Your task to perform on an android device: delete a single message in the gmail app Image 0: 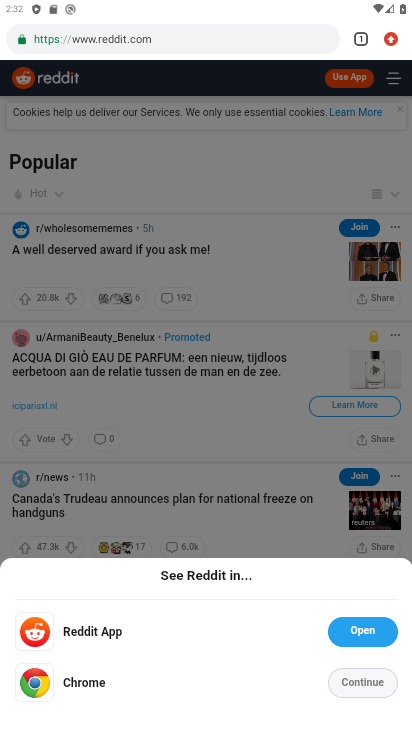
Step 0: press home button
Your task to perform on an android device: delete a single message in the gmail app Image 1: 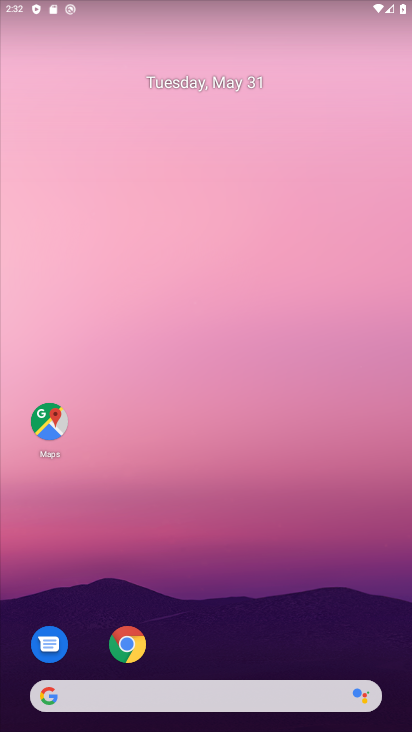
Step 1: drag from (326, 634) to (313, 170)
Your task to perform on an android device: delete a single message in the gmail app Image 2: 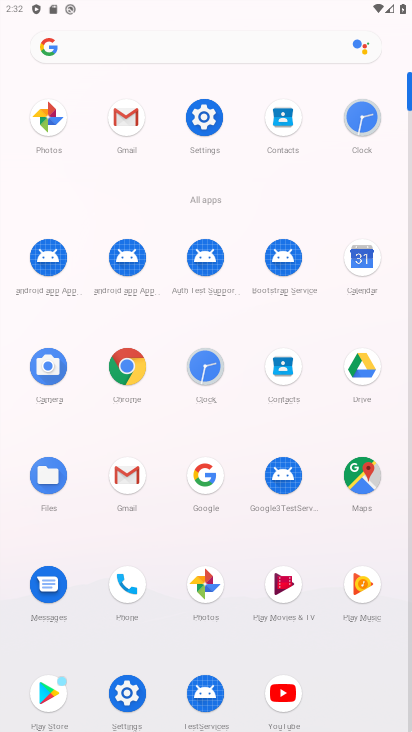
Step 2: click (125, 121)
Your task to perform on an android device: delete a single message in the gmail app Image 3: 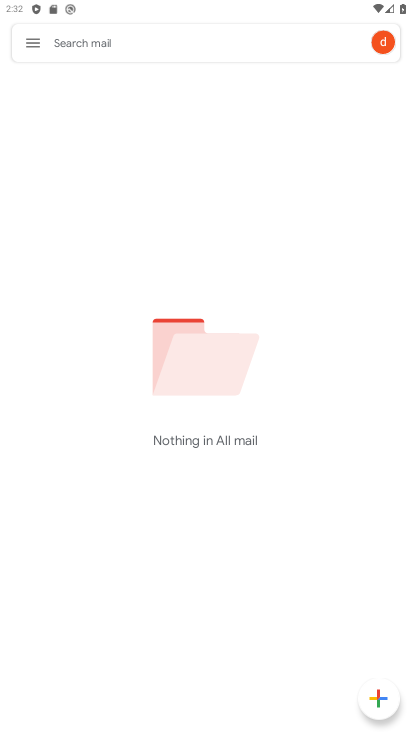
Step 3: task complete